Your task to perform on an android device: turn off smart reply in the gmail app Image 0: 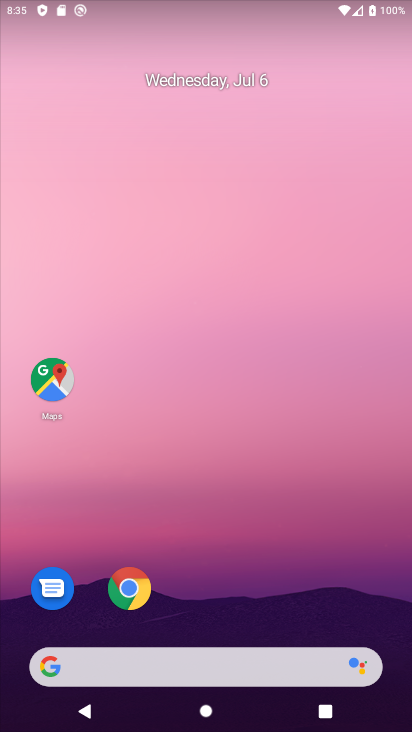
Step 0: drag from (250, 571) to (151, 172)
Your task to perform on an android device: turn off smart reply in the gmail app Image 1: 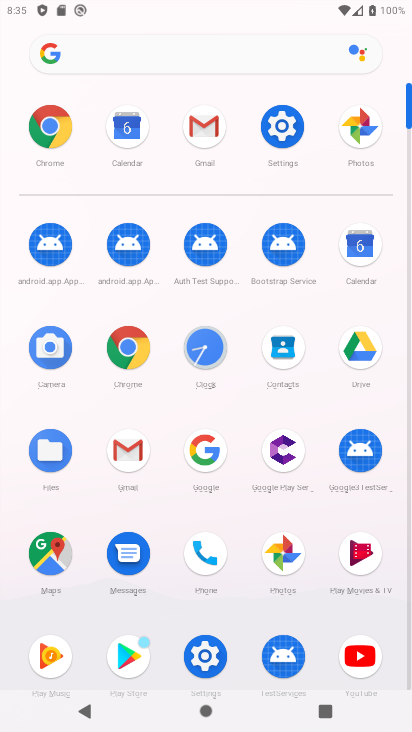
Step 1: click (198, 131)
Your task to perform on an android device: turn off smart reply in the gmail app Image 2: 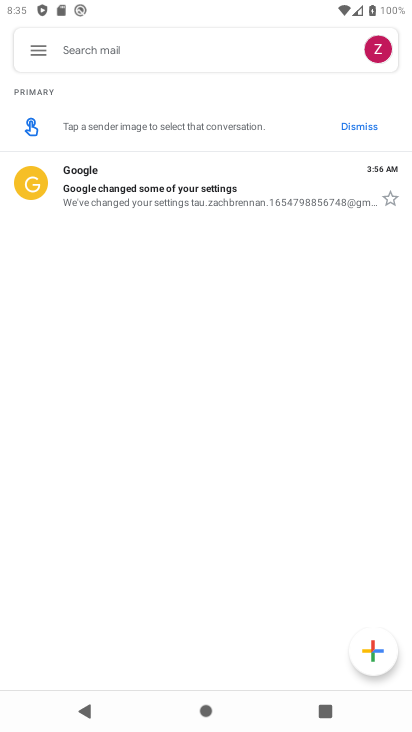
Step 2: click (37, 47)
Your task to perform on an android device: turn off smart reply in the gmail app Image 3: 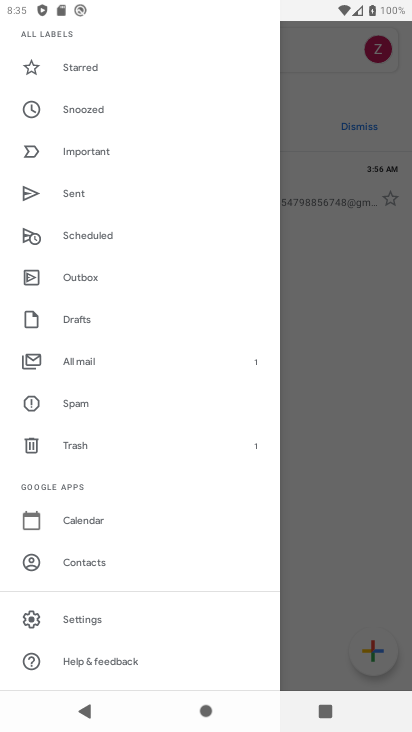
Step 3: click (71, 618)
Your task to perform on an android device: turn off smart reply in the gmail app Image 4: 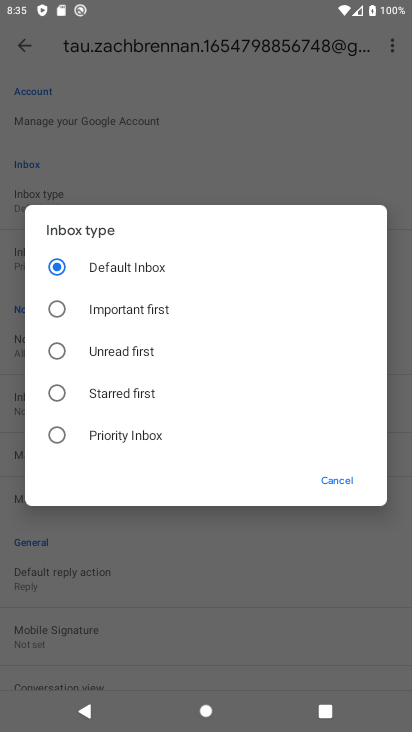
Step 4: click (337, 482)
Your task to perform on an android device: turn off smart reply in the gmail app Image 5: 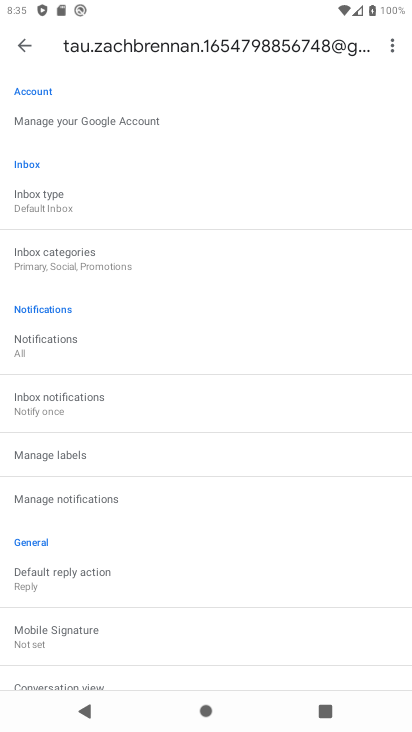
Step 5: drag from (193, 606) to (189, 261)
Your task to perform on an android device: turn off smart reply in the gmail app Image 6: 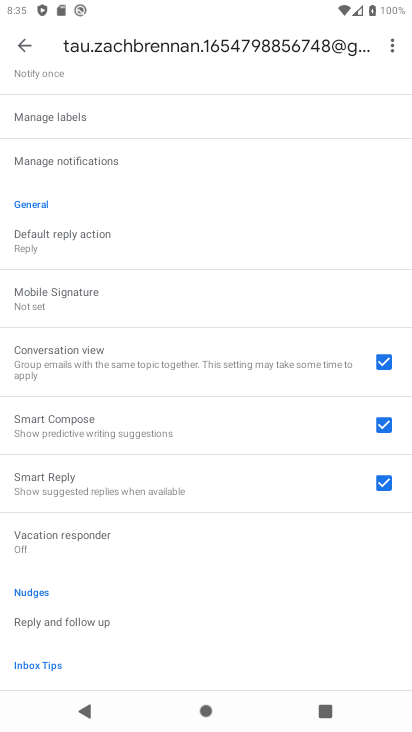
Step 6: click (382, 483)
Your task to perform on an android device: turn off smart reply in the gmail app Image 7: 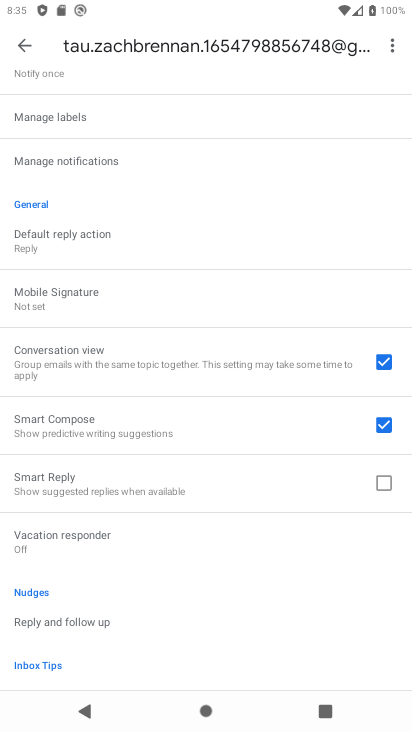
Step 7: task complete